Your task to perform on an android device: toggle data saver in the chrome app Image 0: 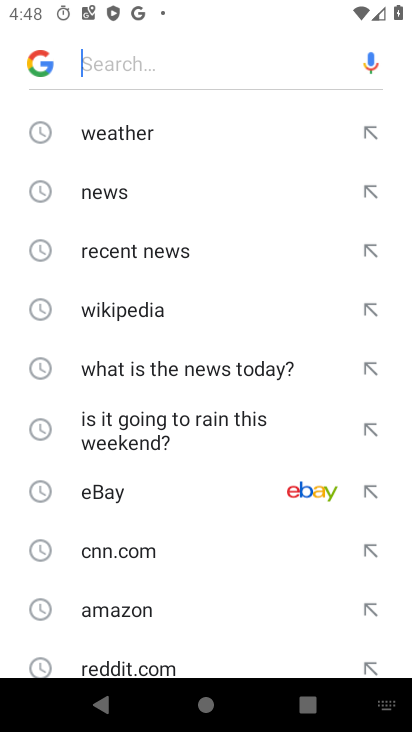
Step 0: press back button
Your task to perform on an android device: toggle data saver in the chrome app Image 1: 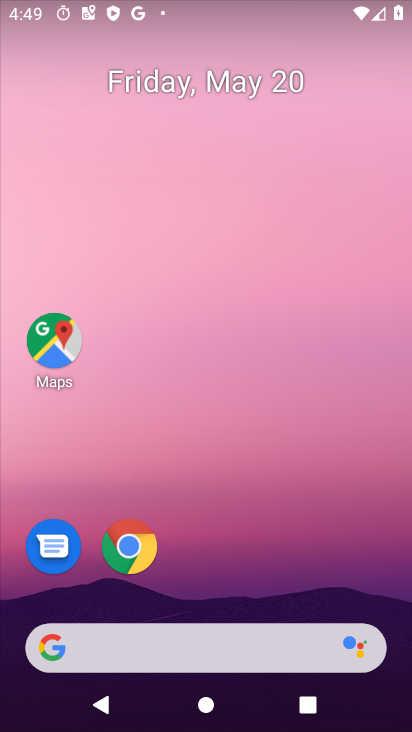
Step 1: click (129, 544)
Your task to perform on an android device: toggle data saver in the chrome app Image 2: 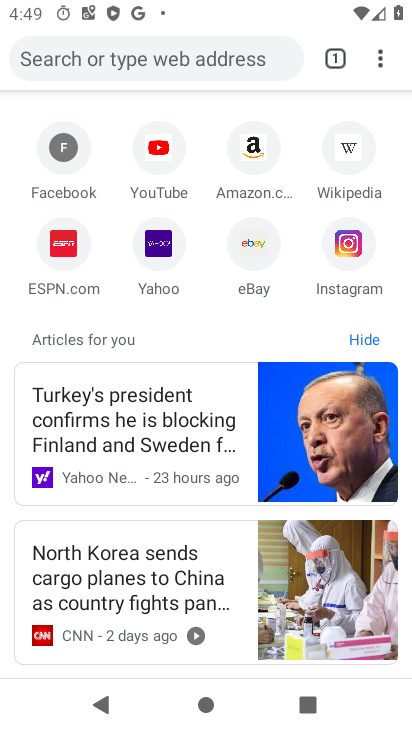
Step 2: click (380, 56)
Your task to perform on an android device: toggle data saver in the chrome app Image 3: 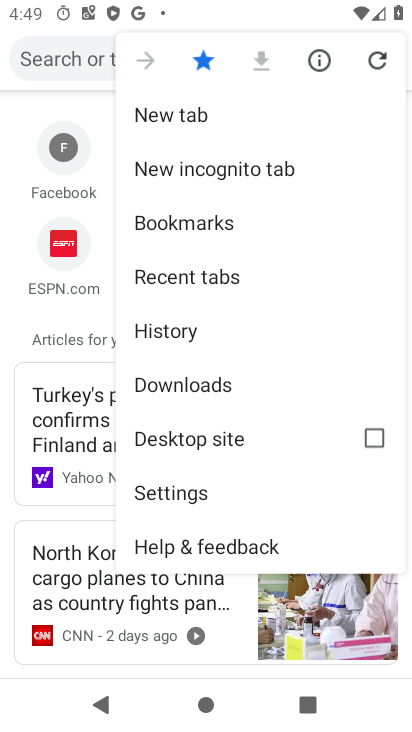
Step 3: click (180, 491)
Your task to perform on an android device: toggle data saver in the chrome app Image 4: 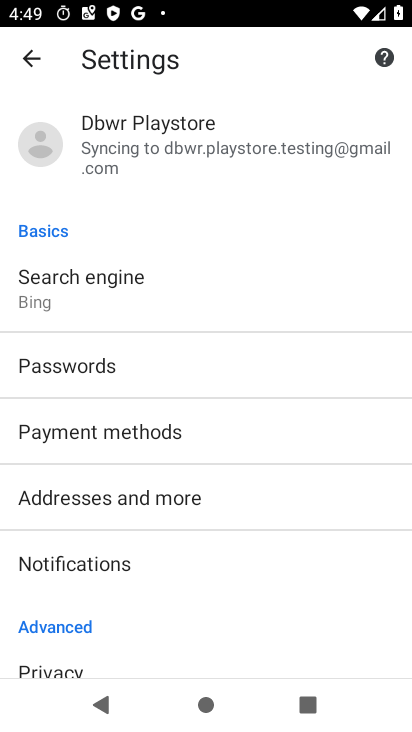
Step 4: drag from (117, 643) to (154, 553)
Your task to perform on an android device: toggle data saver in the chrome app Image 5: 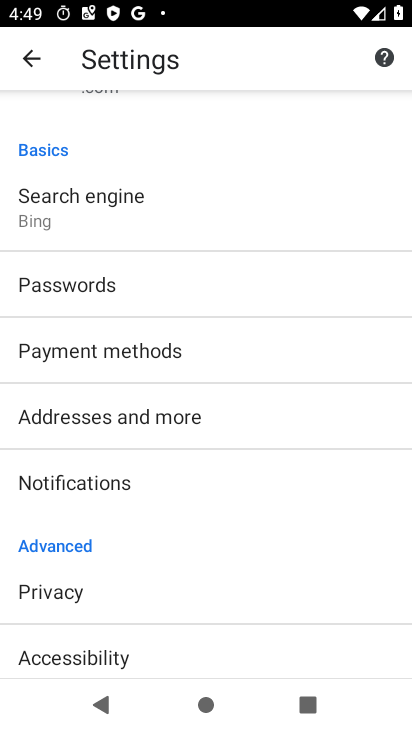
Step 5: drag from (159, 662) to (169, 568)
Your task to perform on an android device: toggle data saver in the chrome app Image 6: 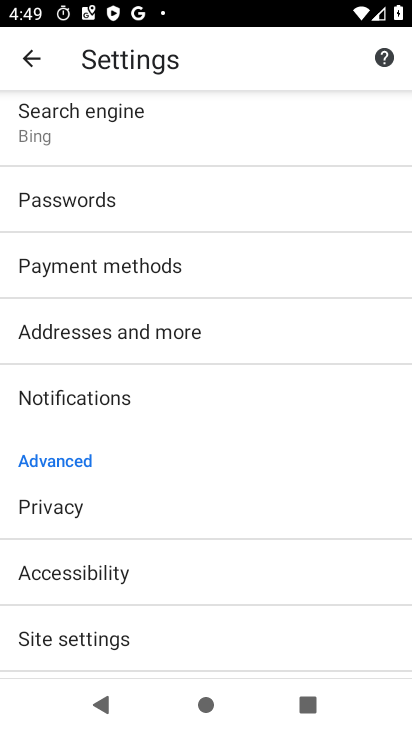
Step 6: drag from (156, 631) to (221, 528)
Your task to perform on an android device: toggle data saver in the chrome app Image 7: 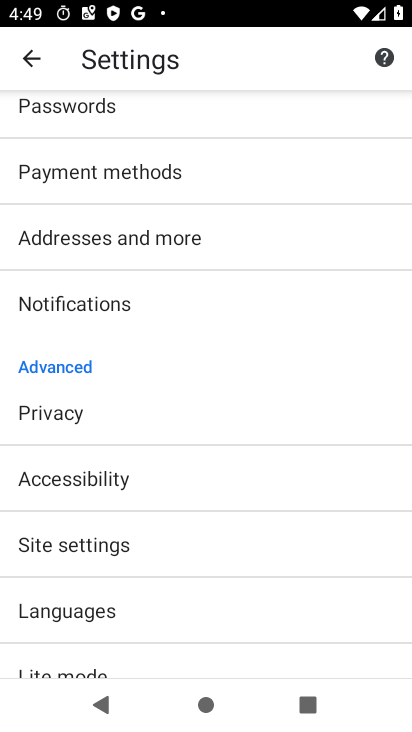
Step 7: drag from (158, 607) to (232, 508)
Your task to perform on an android device: toggle data saver in the chrome app Image 8: 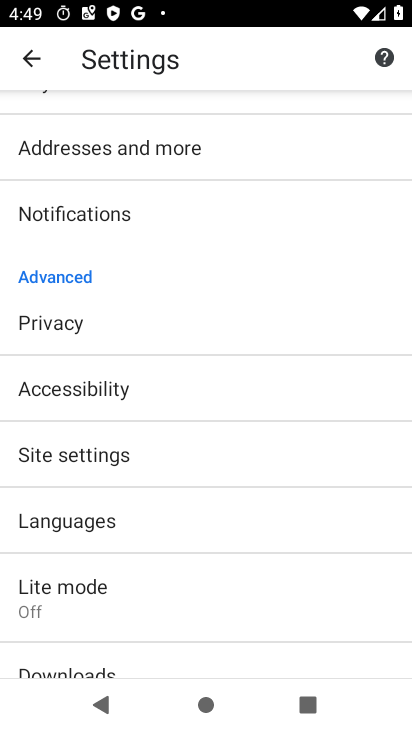
Step 8: drag from (119, 606) to (188, 515)
Your task to perform on an android device: toggle data saver in the chrome app Image 9: 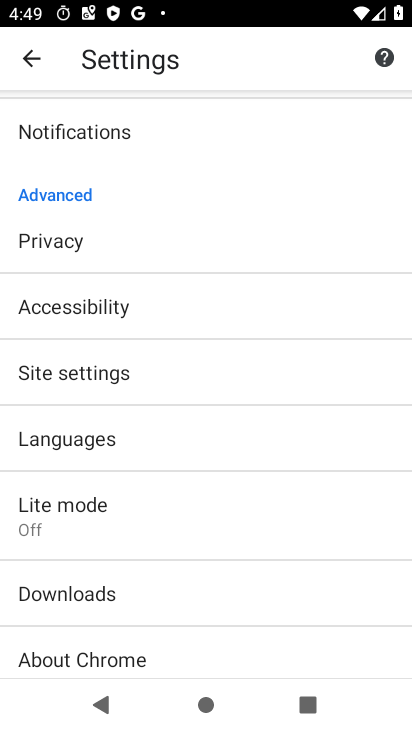
Step 9: click (73, 511)
Your task to perform on an android device: toggle data saver in the chrome app Image 10: 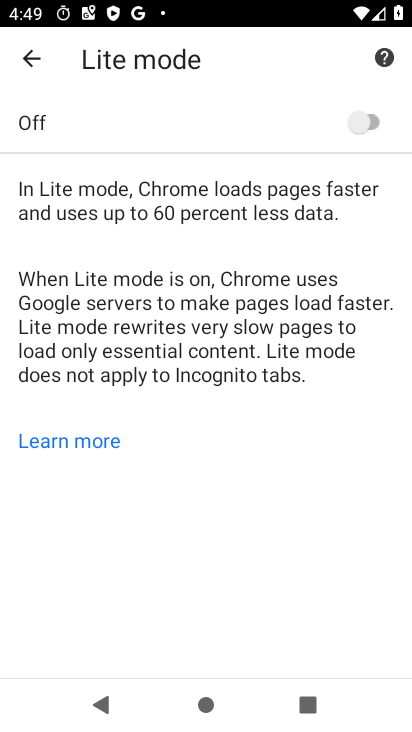
Step 10: click (363, 127)
Your task to perform on an android device: toggle data saver in the chrome app Image 11: 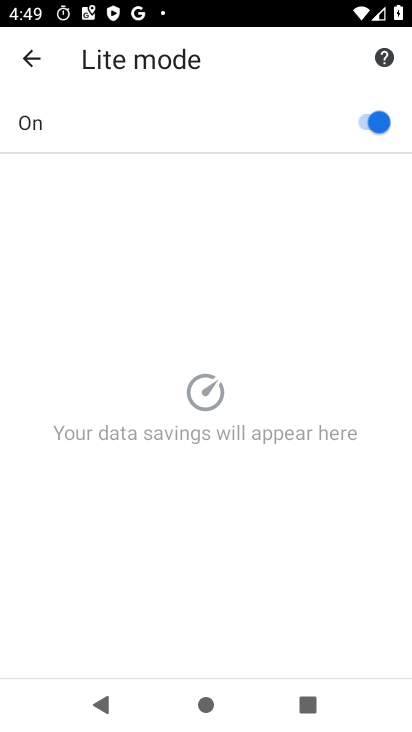
Step 11: task complete